Your task to perform on an android device: set the stopwatch Image 0: 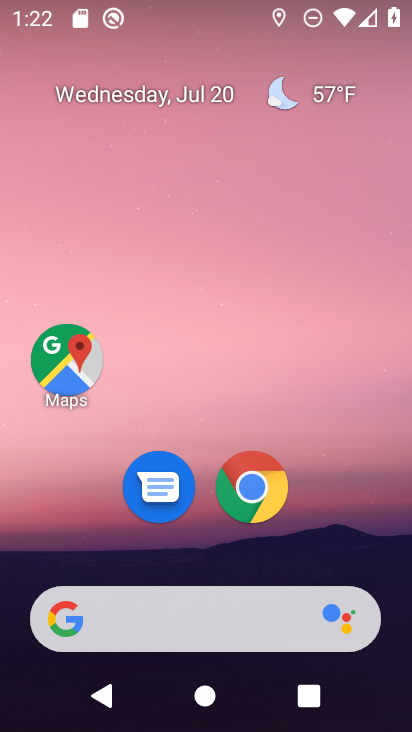
Step 0: drag from (325, 542) to (321, 181)
Your task to perform on an android device: set the stopwatch Image 1: 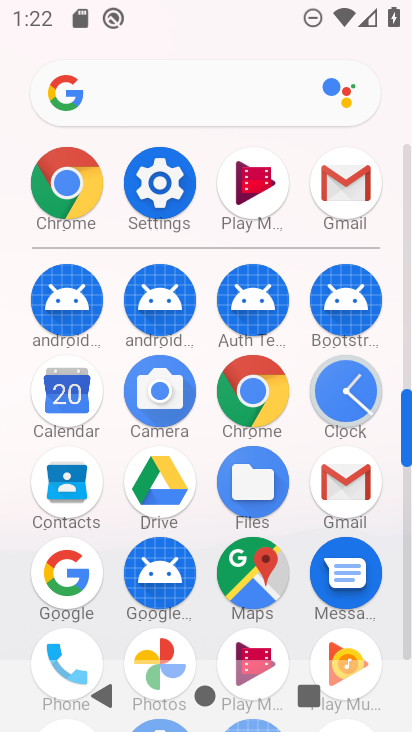
Step 1: click (371, 398)
Your task to perform on an android device: set the stopwatch Image 2: 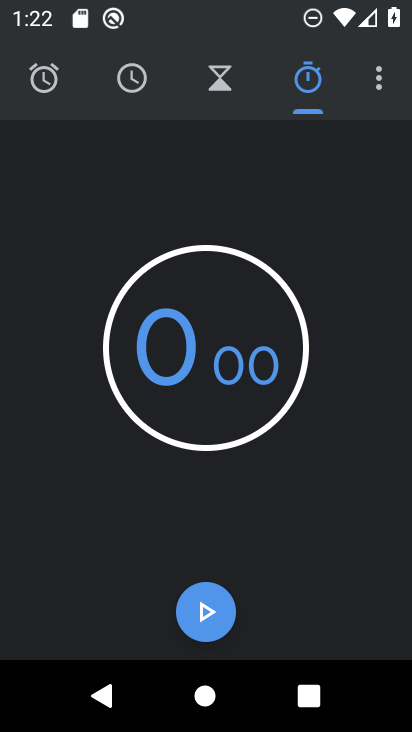
Step 2: task complete